Your task to perform on an android device: delete a single message in the gmail app Image 0: 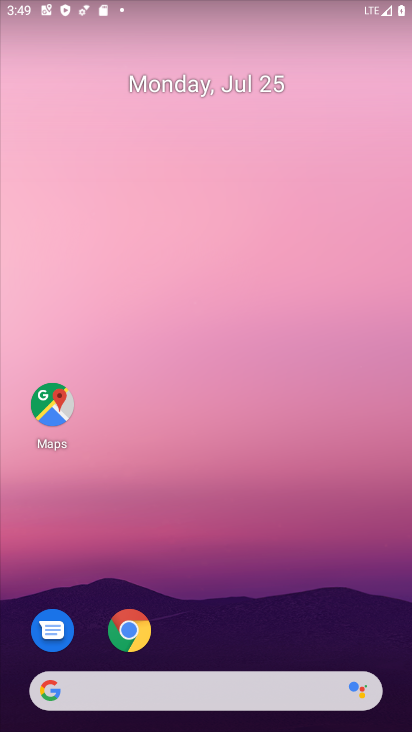
Step 0: drag from (238, 627) to (253, 238)
Your task to perform on an android device: delete a single message in the gmail app Image 1: 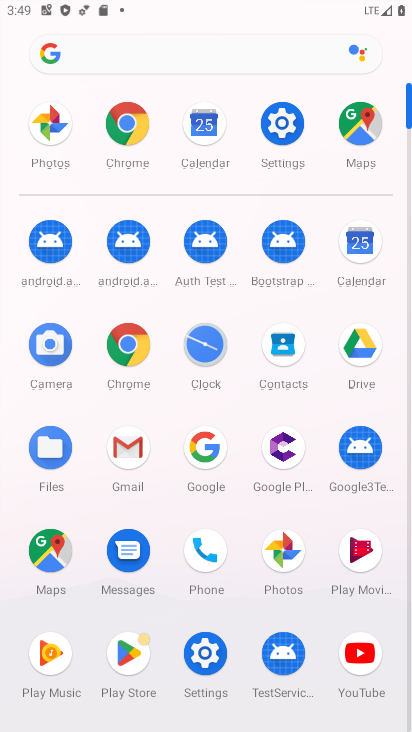
Step 1: click (228, 45)
Your task to perform on an android device: delete a single message in the gmail app Image 2: 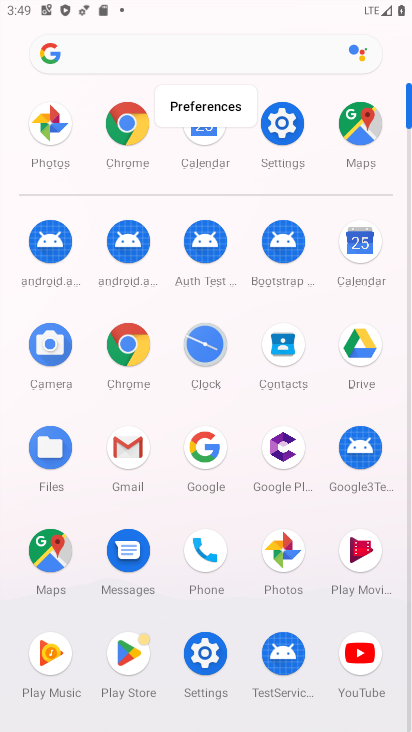
Step 2: click (132, 459)
Your task to perform on an android device: delete a single message in the gmail app Image 3: 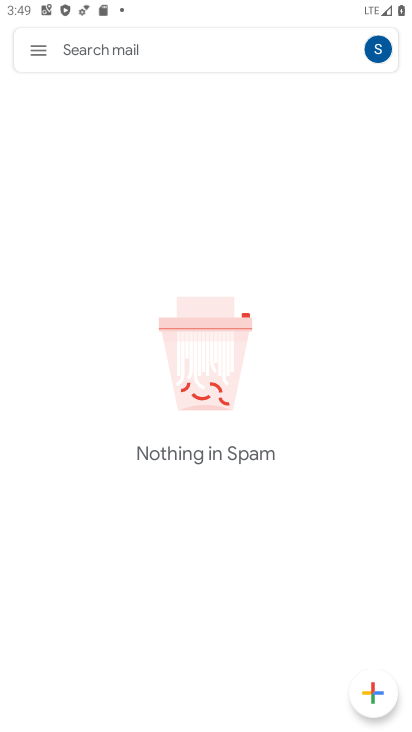
Step 3: click (43, 48)
Your task to perform on an android device: delete a single message in the gmail app Image 4: 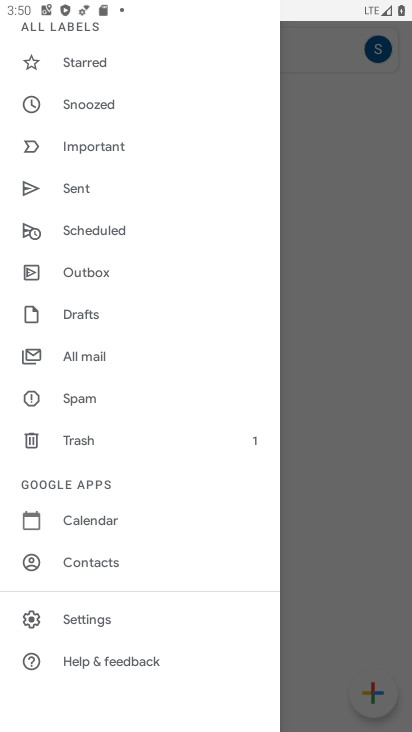
Step 4: drag from (101, 127) to (123, 478)
Your task to perform on an android device: delete a single message in the gmail app Image 5: 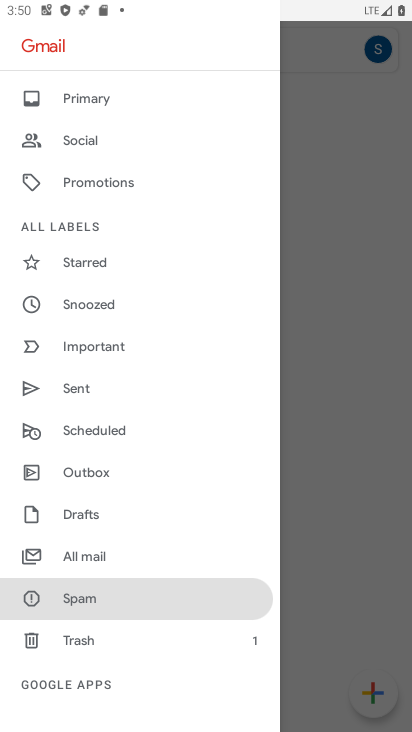
Step 5: drag from (95, 191) to (95, 550)
Your task to perform on an android device: delete a single message in the gmail app Image 6: 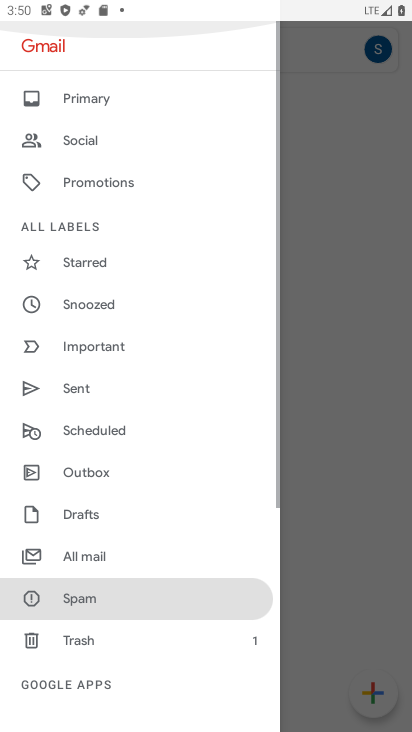
Step 6: click (102, 115)
Your task to perform on an android device: delete a single message in the gmail app Image 7: 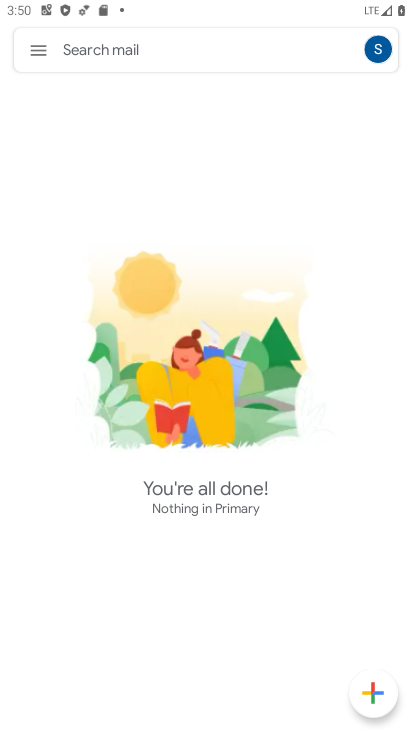
Step 7: task complete